Your task to perform on an android device: turn on the 24-hour format for clock Image 0: 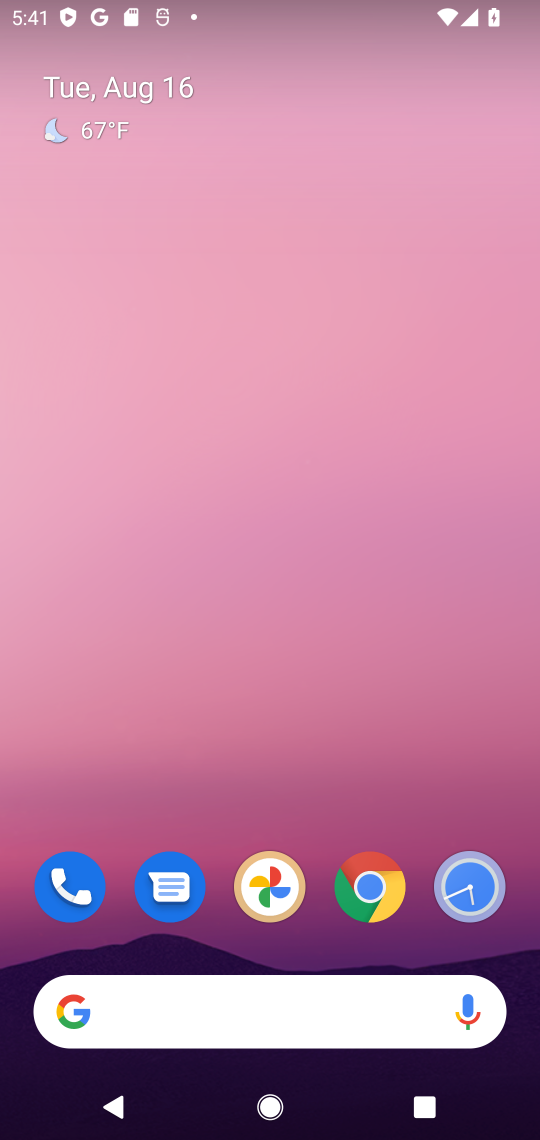
Step 0: drag from (363, 761) to (386, 2)
Your task to perform on an android device: turn on the 24-hour format for clock Image 1: 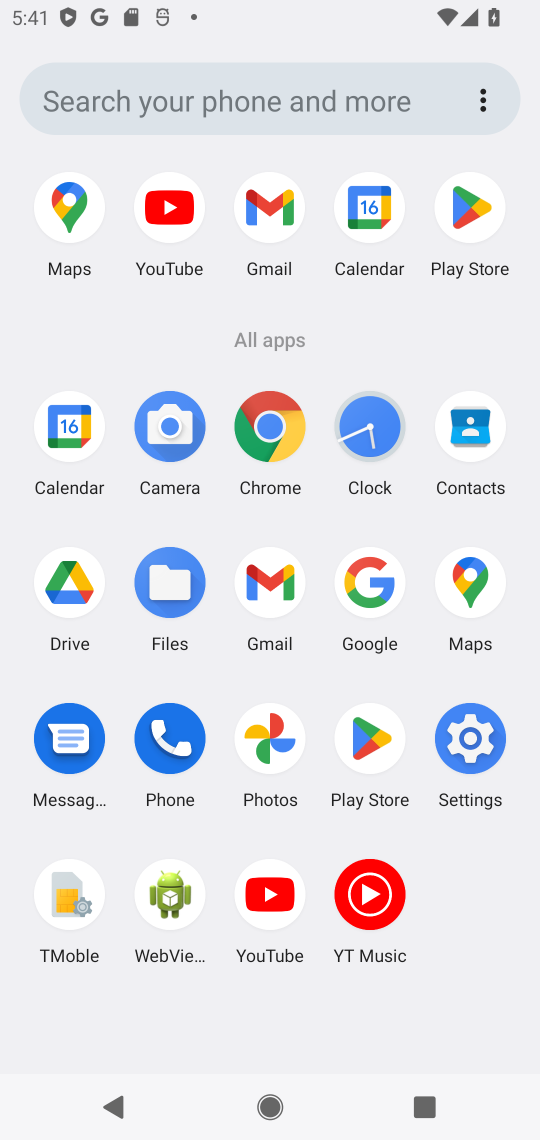
Step 1: click (367, 431)
Your task to perform on an android device: turn on the 24-hour format for clock Image 2: 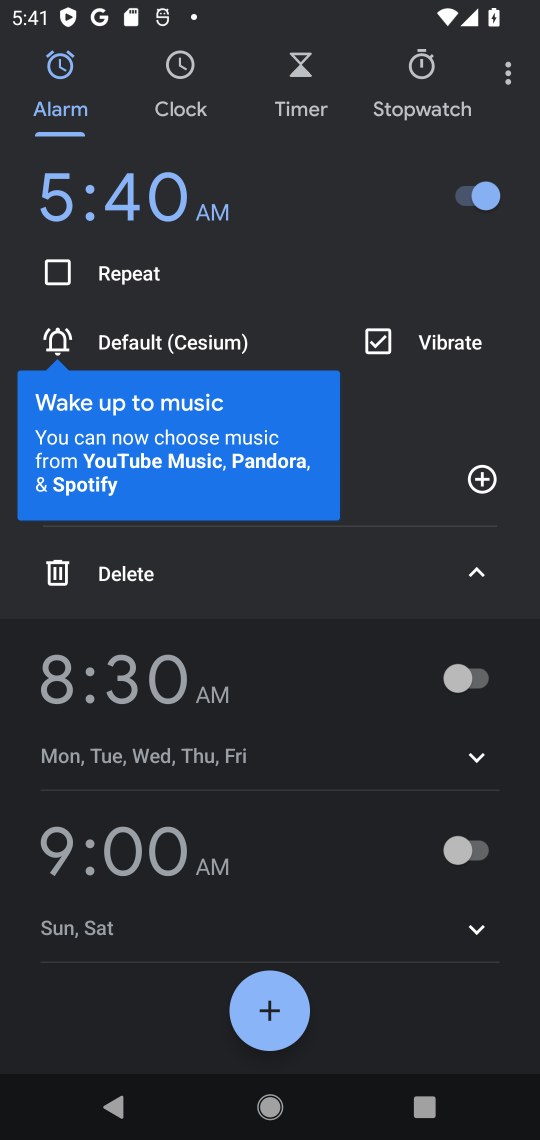
Step 2: click (508, 67)
Your task to perform on an android device: turn on the 24-hour format for clock Image 3: 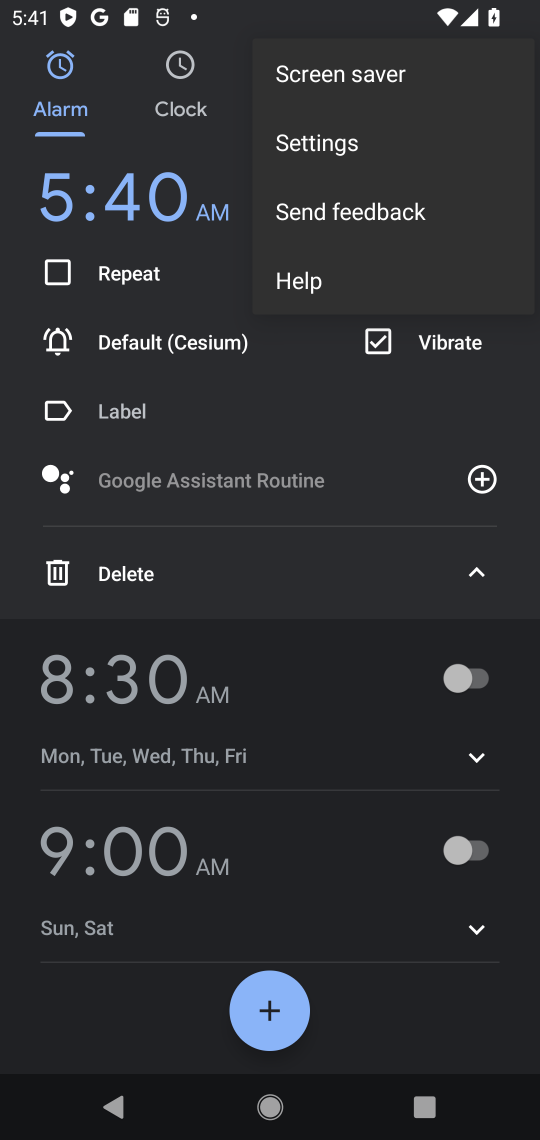
Step 3: click (307, 137)
Your task to perform on an android device: turn on the 24-hour format for clock Image 4: 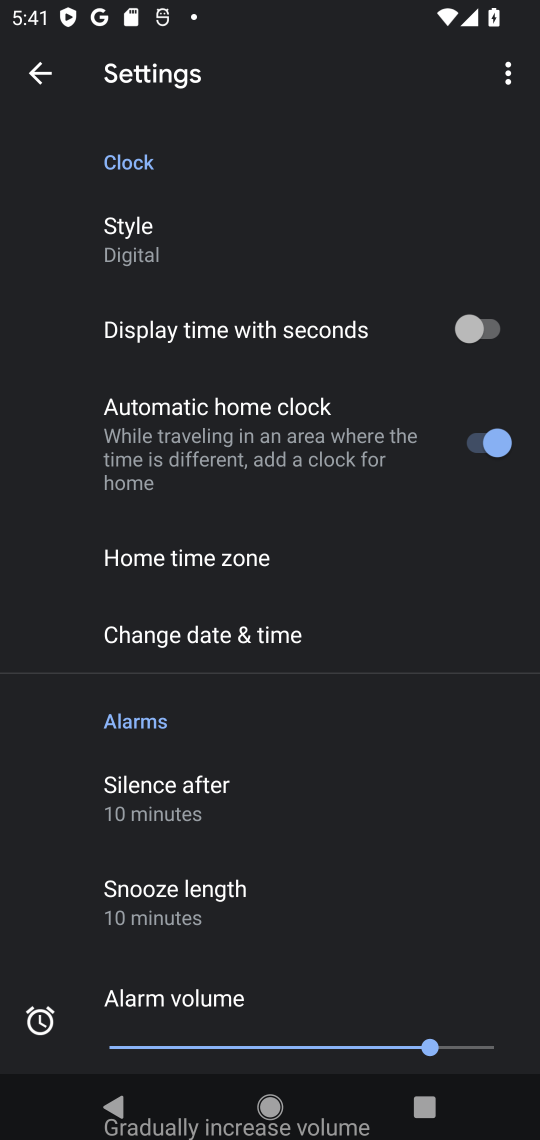
Step 4: click (257, 638)
Your task to perform on an android device: turn on the 24-hour format for clock Image 5: 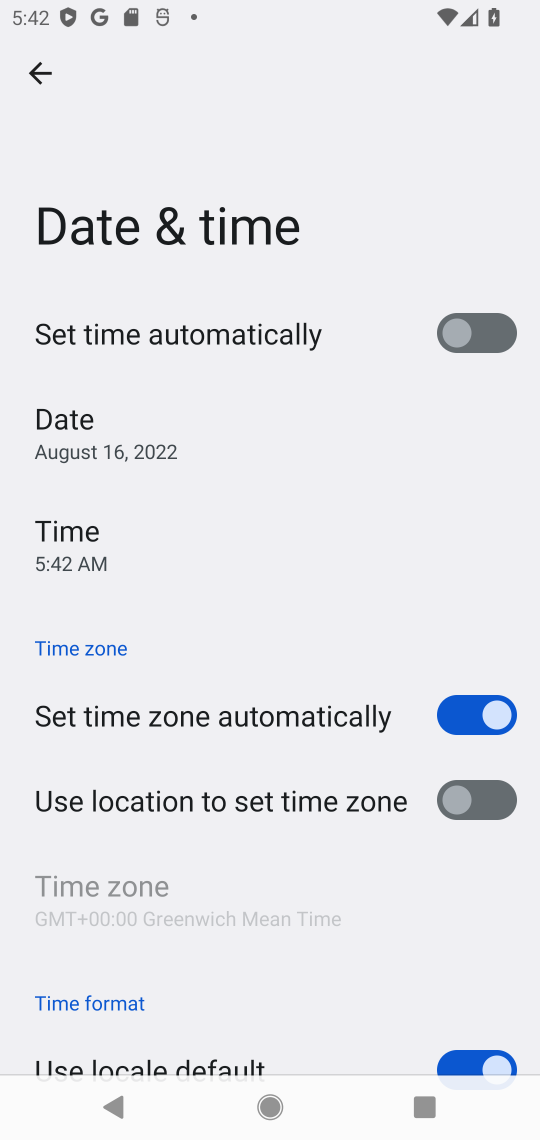
Step 5: drag from (264, 968) to (287, 664)
Your task to perform on an android device: turn on the 24-hour format for clock Image 6: 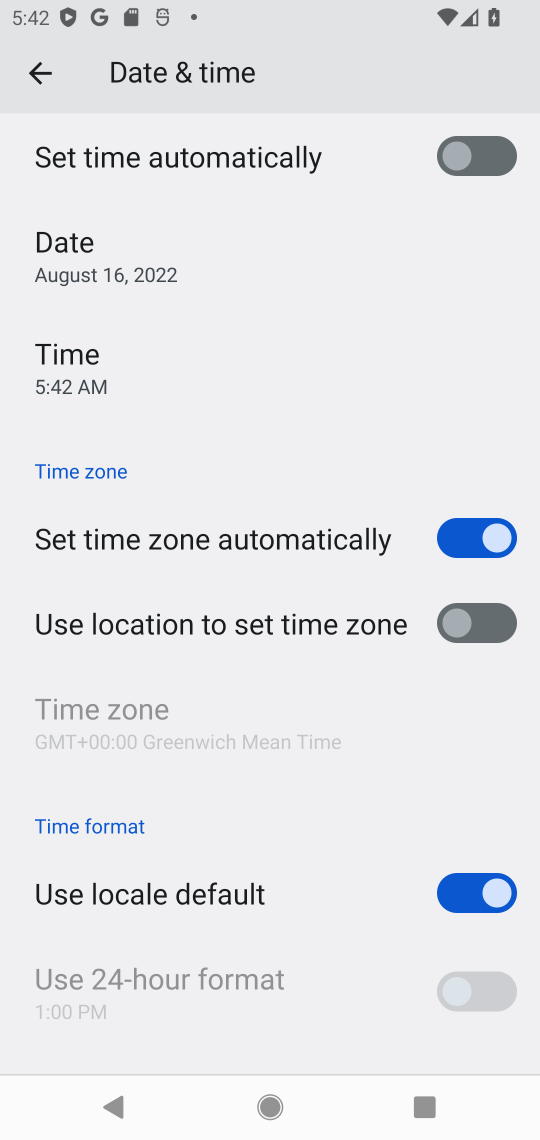
Step 6: click (445, 890)
Your task to perform on an android device: turn on the 24-hour format for clock Image 7: 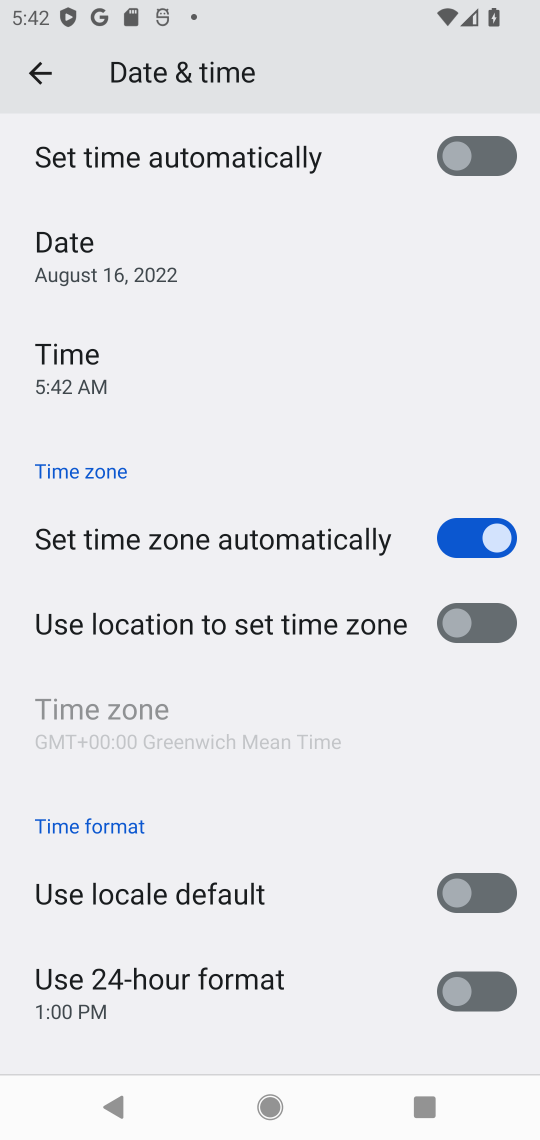
Step 7: click (488, 999)
Your task to perform on an android device: turn on the 24-hour format for clock Image 8: 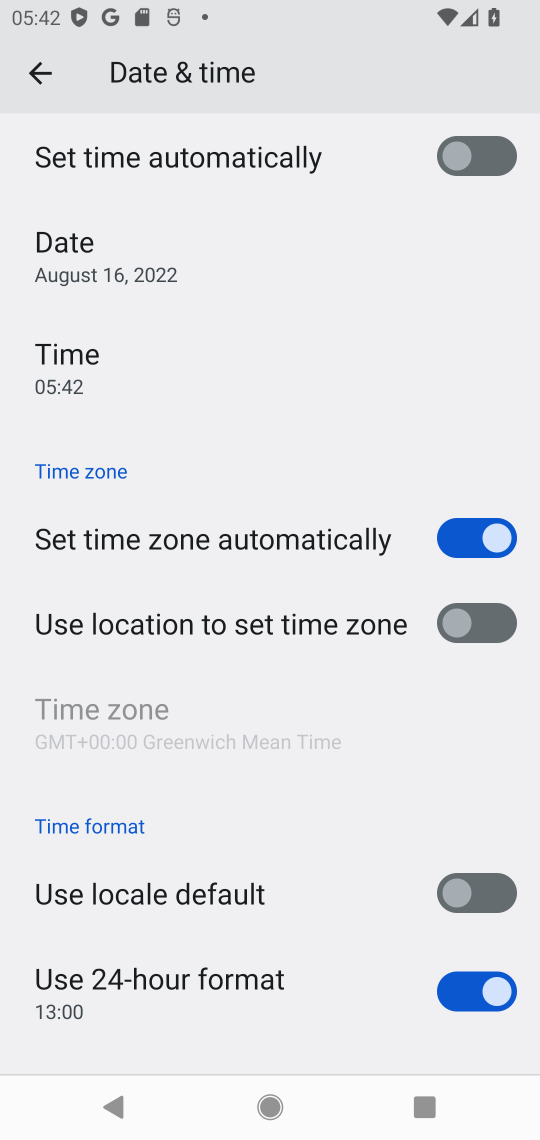
Step 8: task complete